Your task to perform on an android device: allow cookies in the chrome app Image 0: 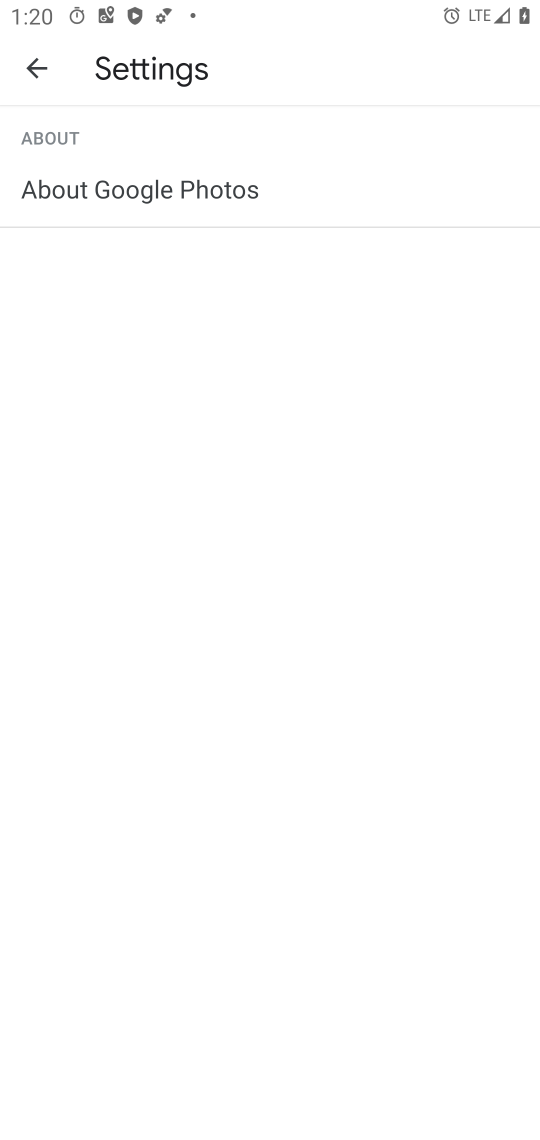
Step 0: press home button
Your task to perform on an android device: allow cookies in the chrome app Image 1: 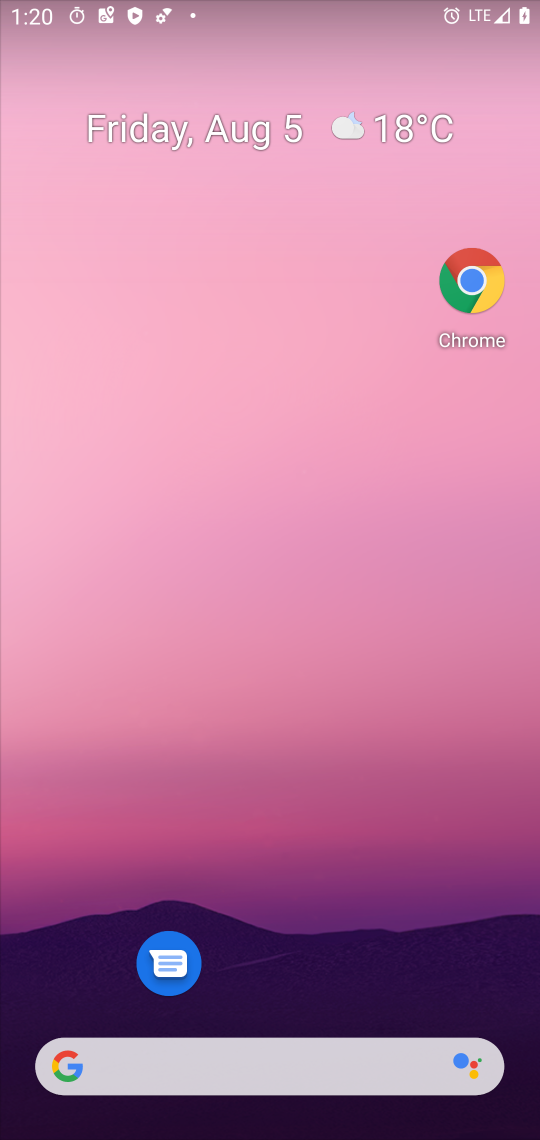
Step 1: drag from (319, 627) to (370, 0)
Your task to perform on an android device: allow cookies in the chrome app Image 2: 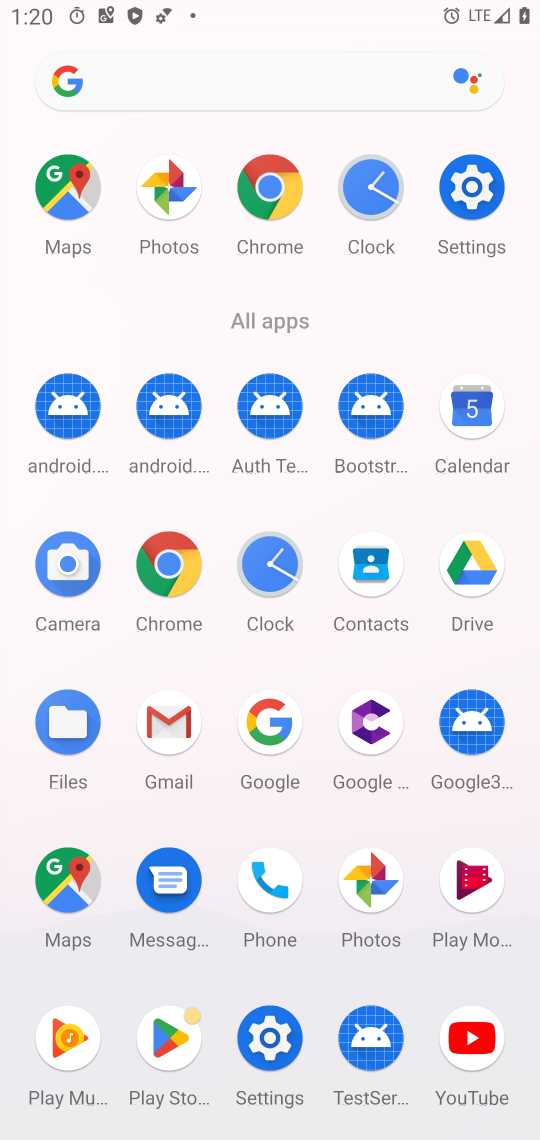
Step 2: click (270, 181)
Your task to perform on an android device: allow cookies in the chrome app Image 3: 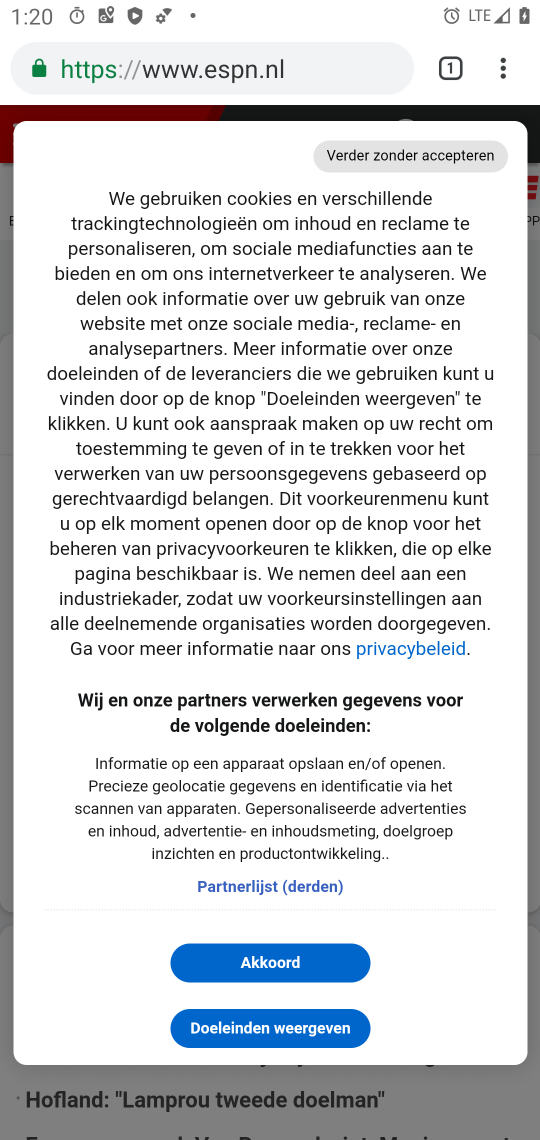
Step 3: drag from (499, 71) to (259, 782)
Your task to perform on an android device: allow cookies in the chrome app Image 4: 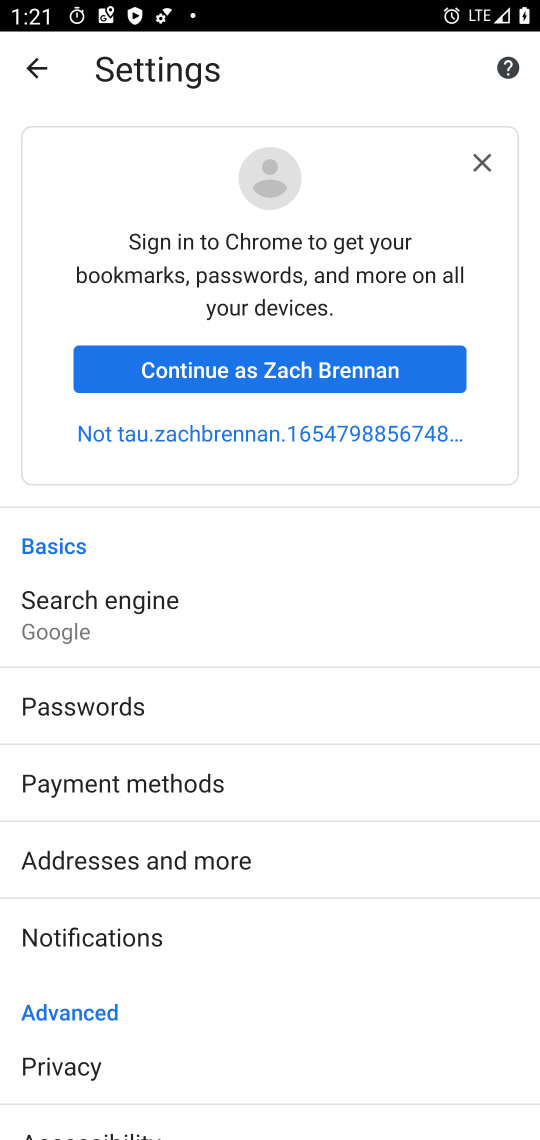
Step 4: drag from (166, 955) to (337, 186)
Your task to perform on an android device: allow cookies in the chrome app Image 5: 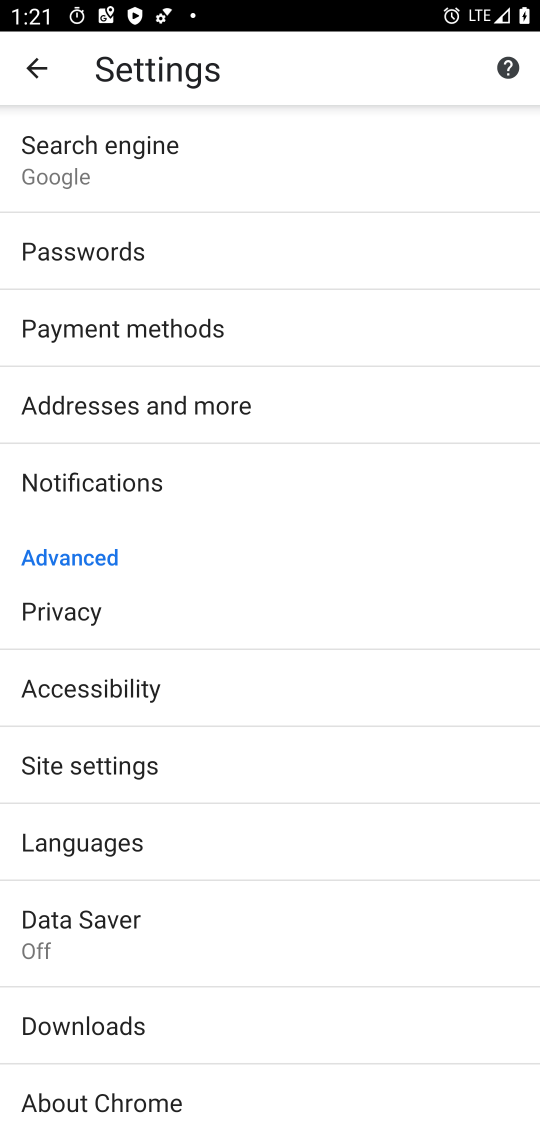
Step 5: click (122, 751)
Your task to perform on an android device: allow cookies in the chrome app Image 6: 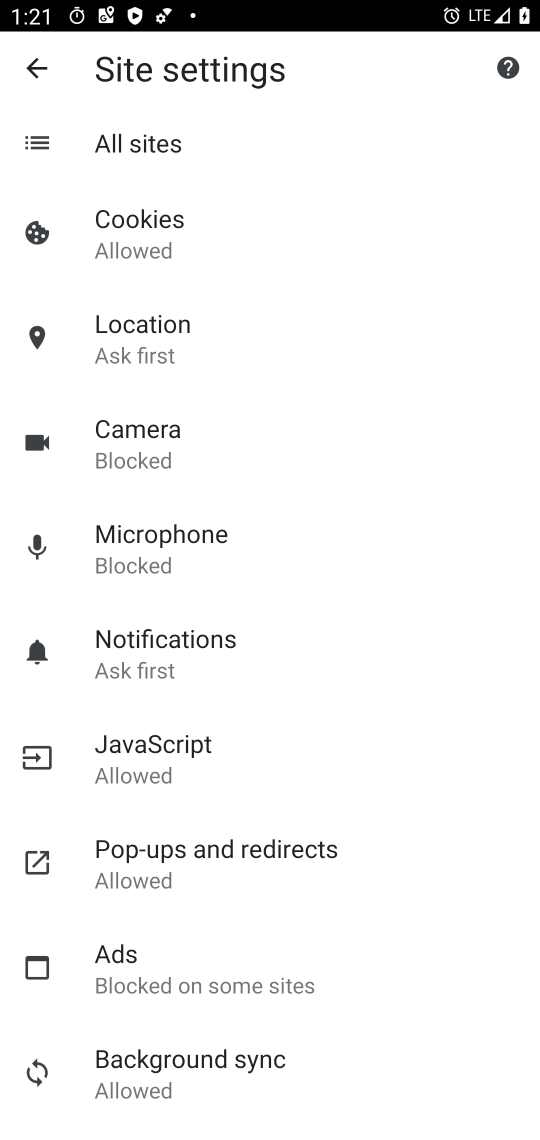
Step 6: click (160, 234)
Your task to perform on an android device: allow cookies in the chrome app Image 7: 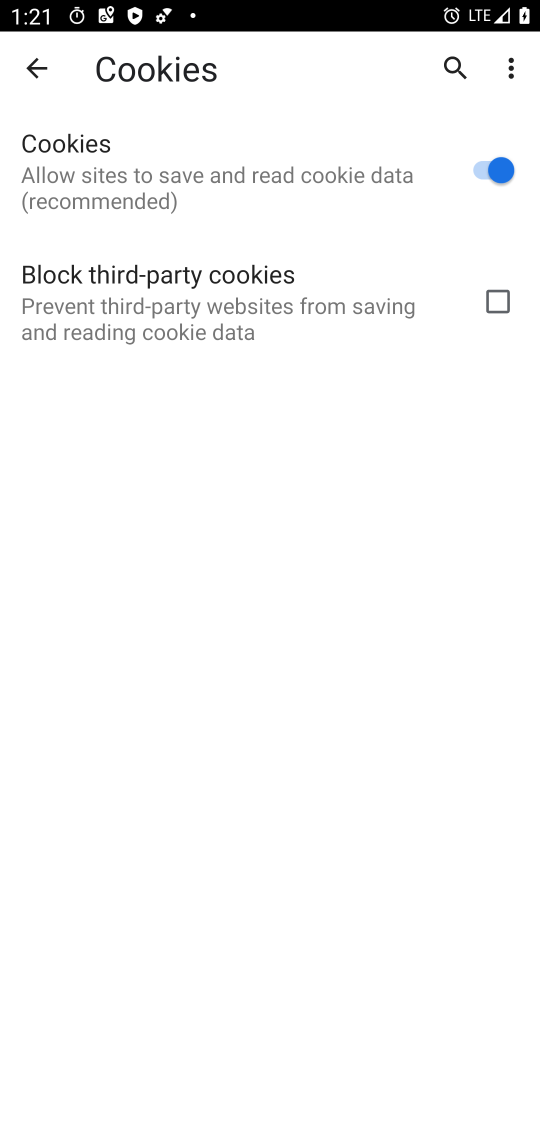
Step 7: task complete